Your task to perform on an android device: open chrome and create a bookmark for the current page Image 0: 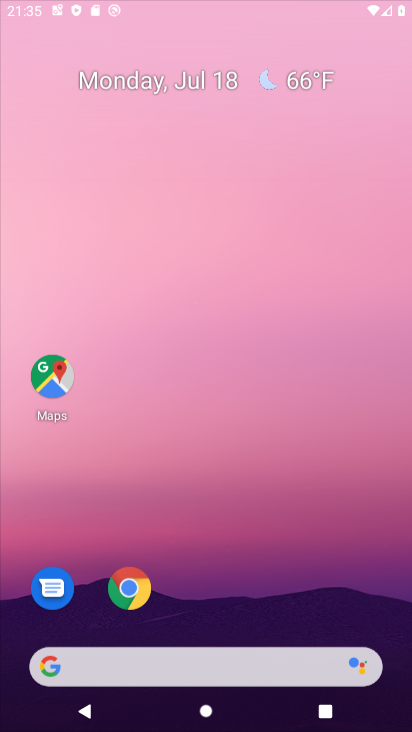
Step 0: press home button
Your task to perform on an android device: open chrome and create a bookmark for the current page Image 1: 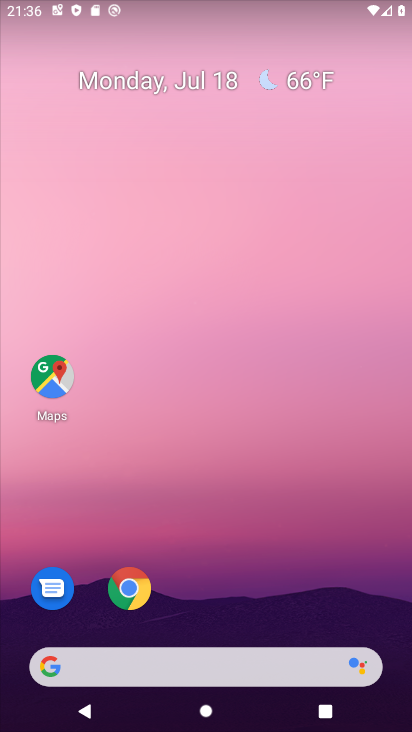
Step 1: click (129, 592)
Your task to perform on an android device: open chrome and create a bookmark for the current page Image 2: 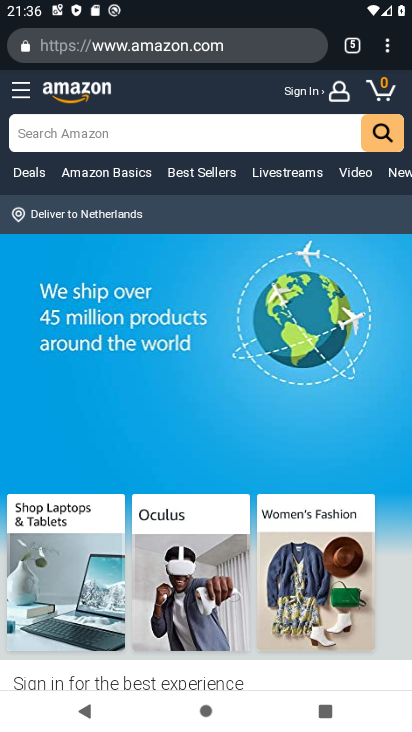
Step 2: click (386, 61)
Your task to perform on an android device: open chrome and create a bookmark for the current page Image 3: 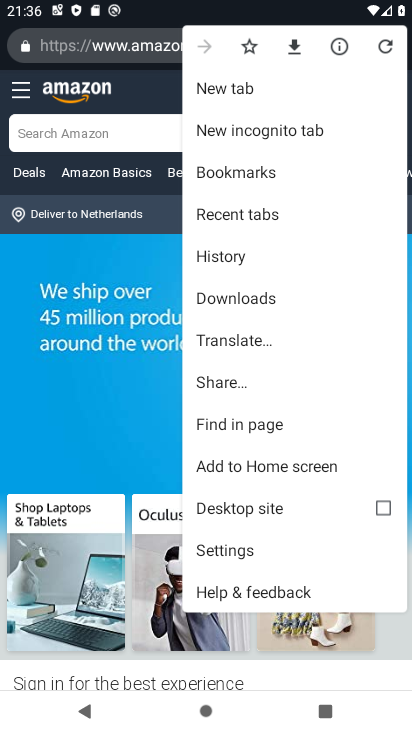
Step 3: click (249, 48)
Your task to perform on an android device: open chrome and create a bookmark for the current page Image 4: 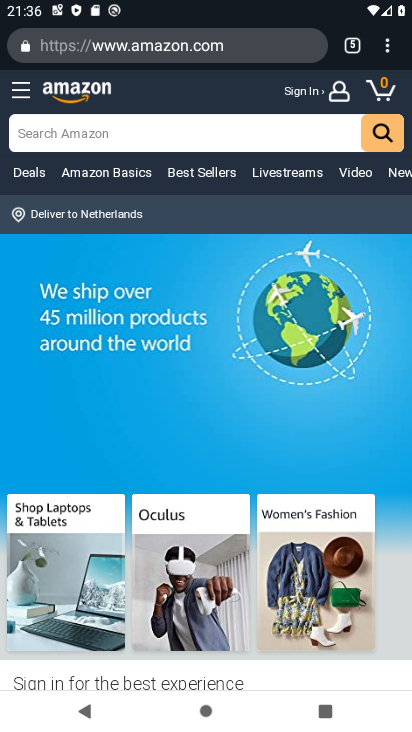
Step 4: task complete